Your task to perform on an android device: Open calendar and show me the second week of next month Image 0: 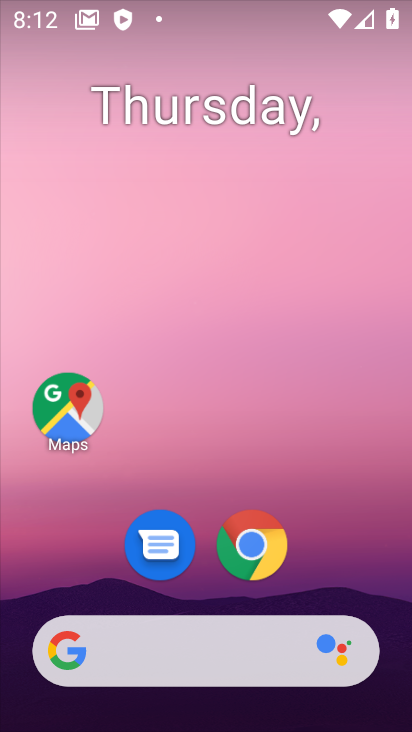
Step 0: drag from (334, 577) to (322, 3)
Your task to perform on an android device: Open calendar and show me the second week of next month Image 1: 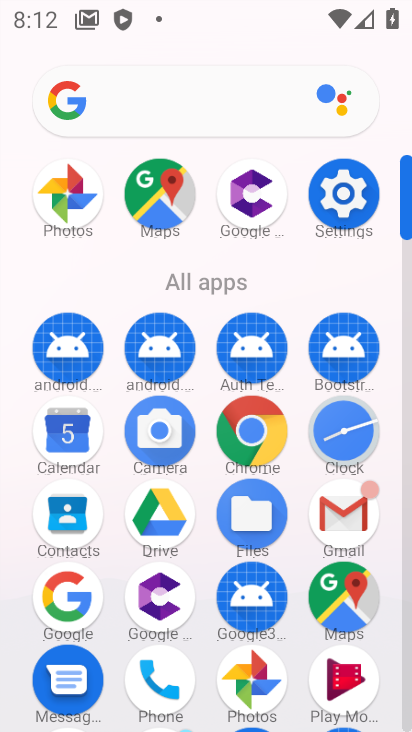
Step 1: drag from (202, 492) to (189, 277)
Your task to perform on an android device: Open calendar and show me the second week of next month Image 2: 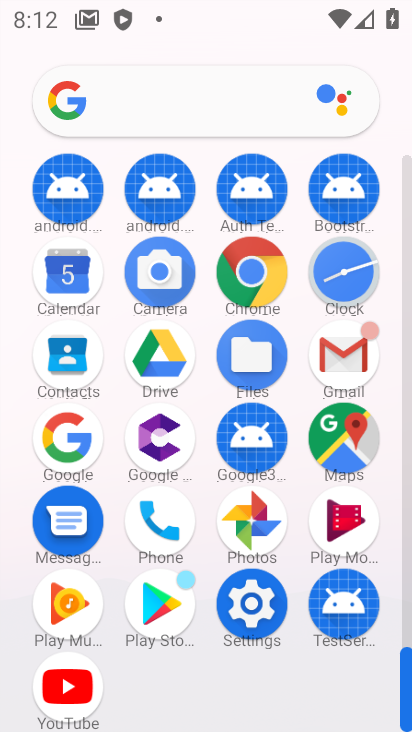
Step 2: click (66, 274)
Your task to perform on an android device: Open calendar and show me the second week of next month Image 3: 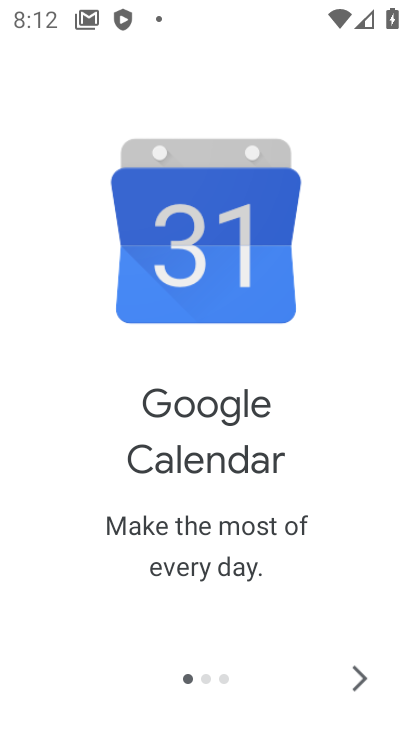
Step 3: click (363, 674)
Your task to perform on an android device: Open calendar and show me the second week of next month Image 4: 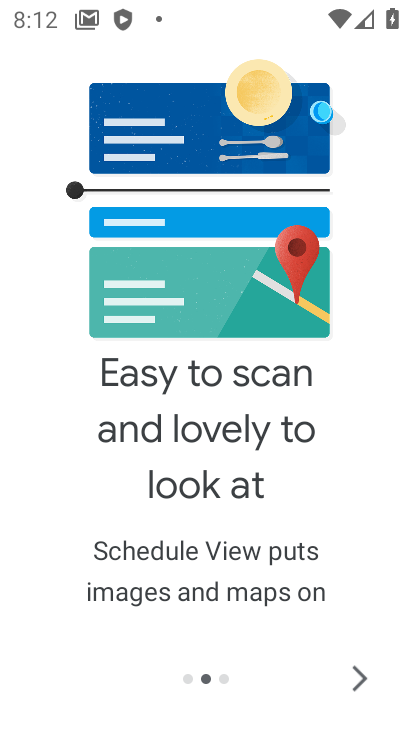
Step 4: click (363, 674)
Your task to perform on an android device: Open calendar and show me the second week of next month Image 5: 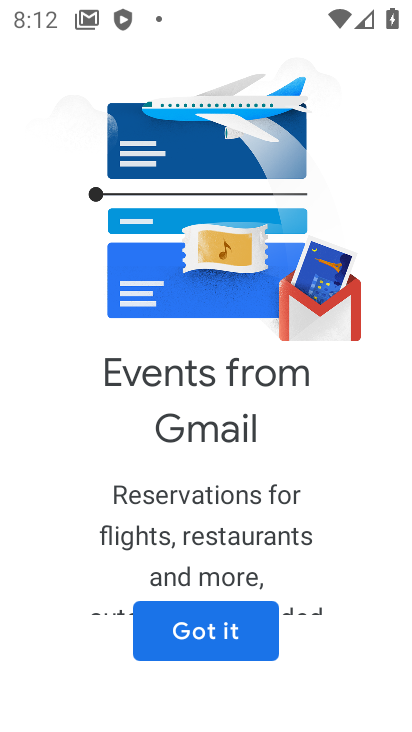
Step 5: click (202, 642)
Your task to perform on an android device: Open calendar and show me the second week of next month Image 6: 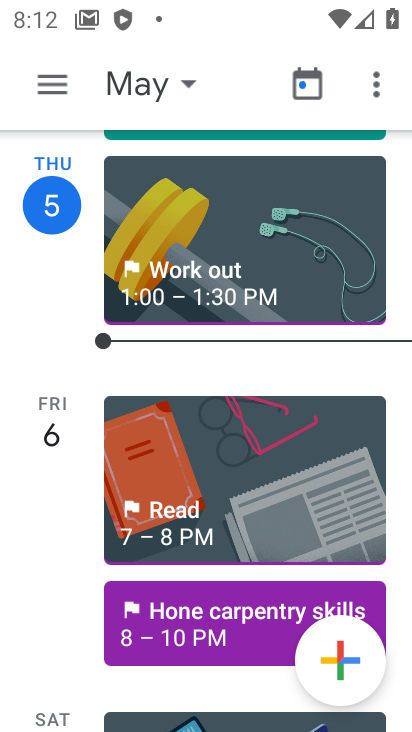
Step 6: click (152, 80)
Your task to perform on an android device: Open calendar and show me the second week of next month Image 7: 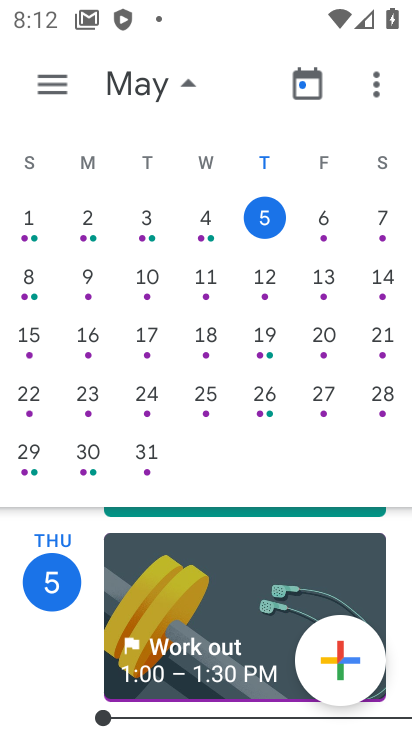
Step 7: drag from (301, 308) to (3, 404)
Your task to perform on an android device: Open calendar and show me the second week of next month Image 8: 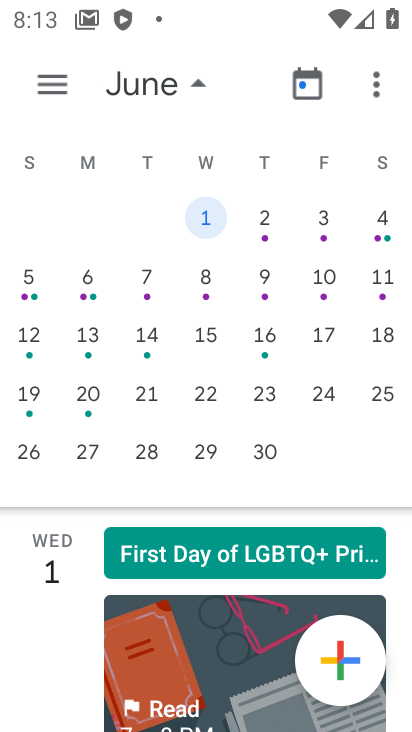
Step 8: click (88, 333)
Your task to perform on an android device: Open calendar and show me the second week of next month Image 9: 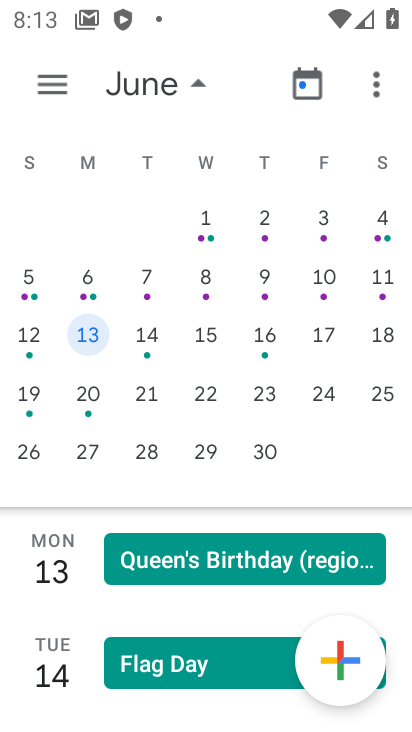
Step 9: click (46, 86)
Your task to perform on an android device: Open calendar and show me the second week of next month Image 10: 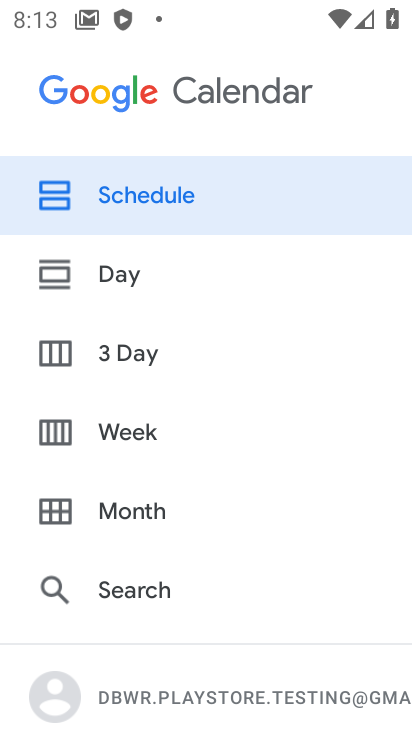
Step 10: click (136, 434)
Your task to perform on an android device: Open calendar and show me the second week of next month Image 11: 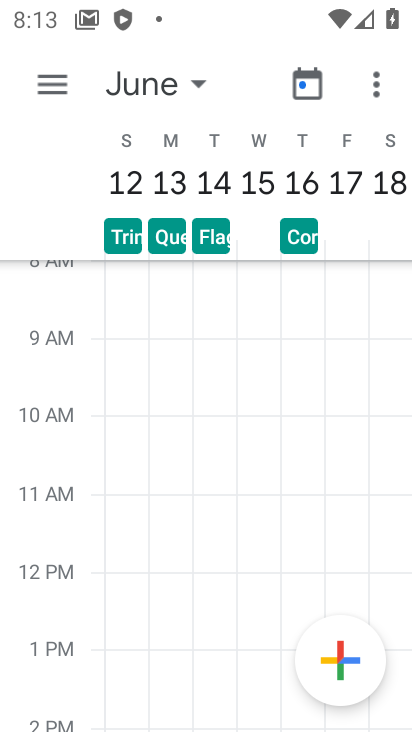
Step 11: task complete